Your task to perform on an android device: Add asus rog to the cart on bestbuy, then select checkout. Image 0: 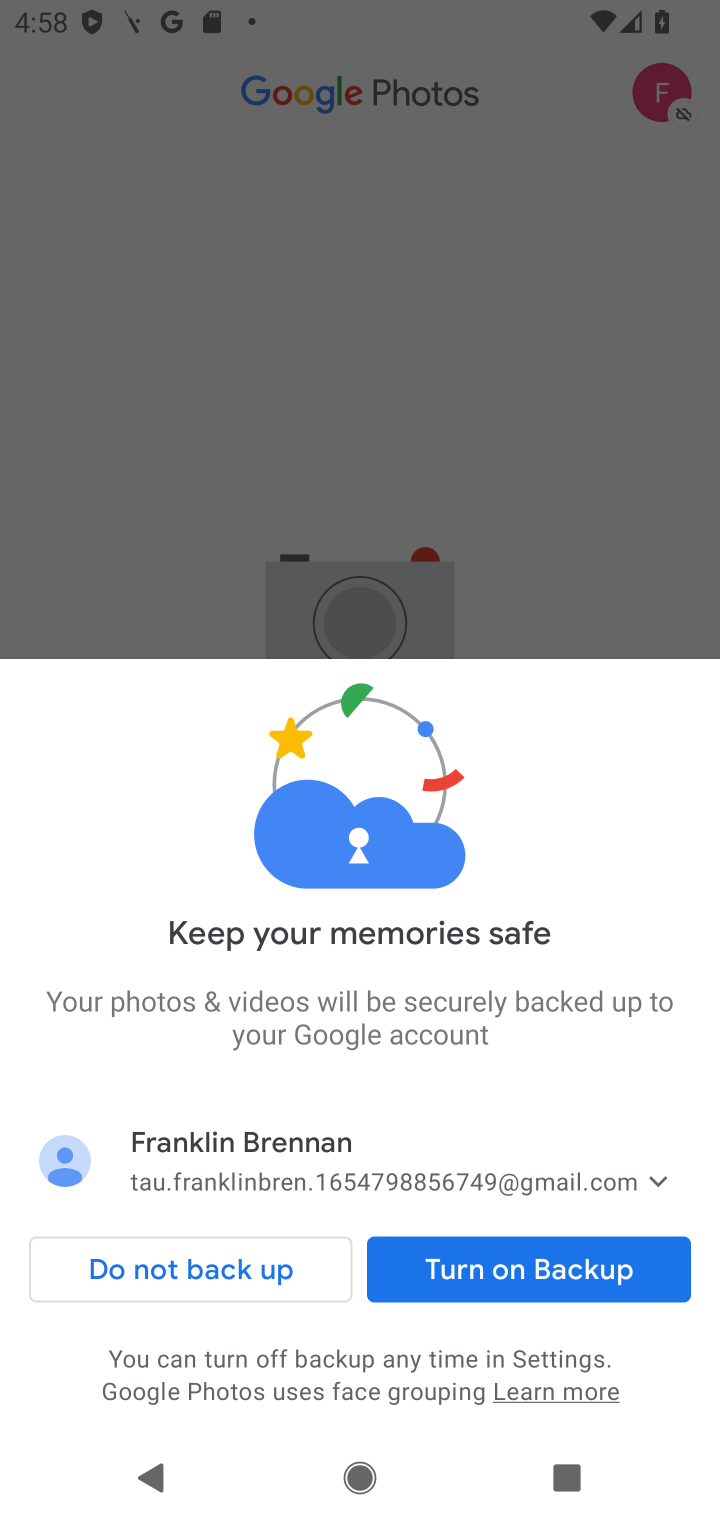
Step 0: press home button
Your task to perform on an android device: Add asus rog to the cart on bestbuy, then select checkout. Image 1: 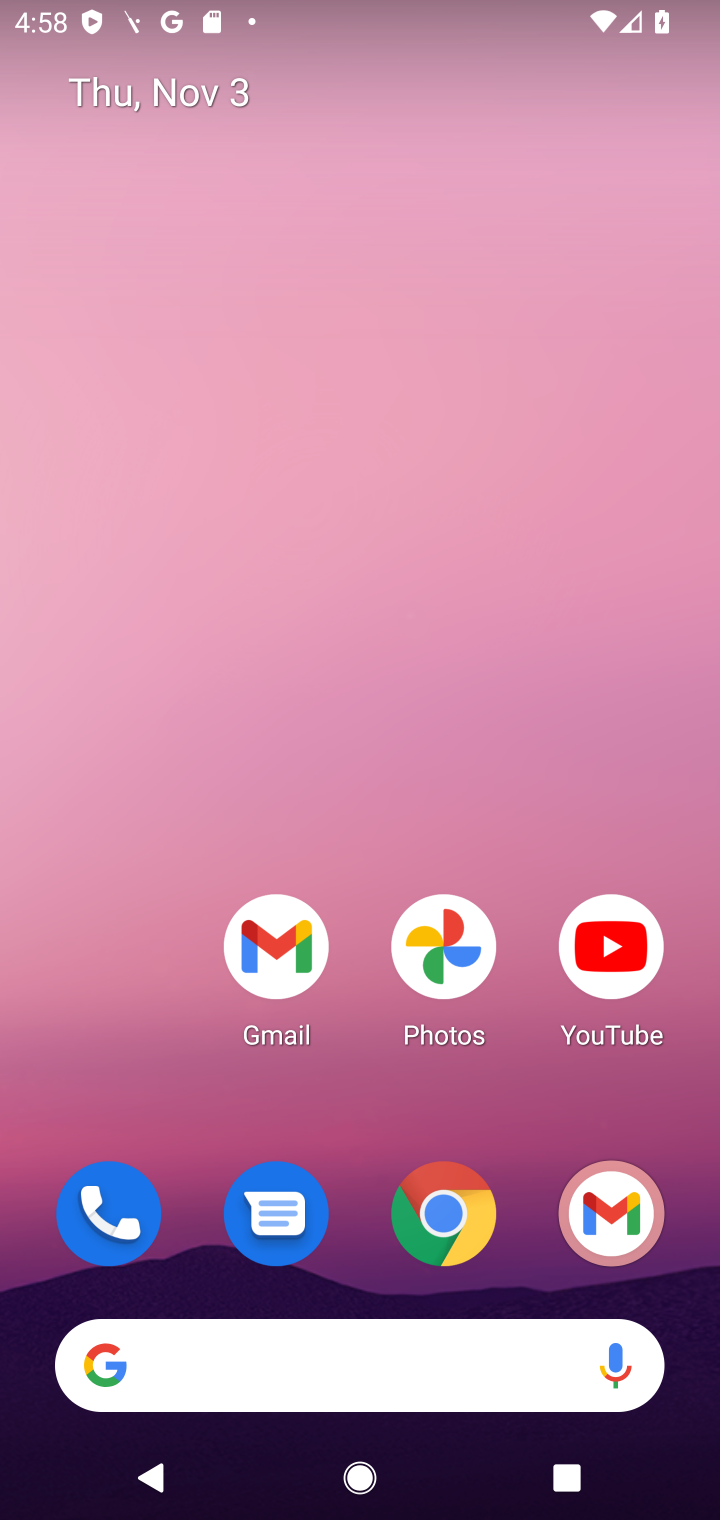
Step 1: click (446, 1226)
Your task to perform on an android device: Add asus rog to the cart on bestbuy, then select checkout. Image 2: 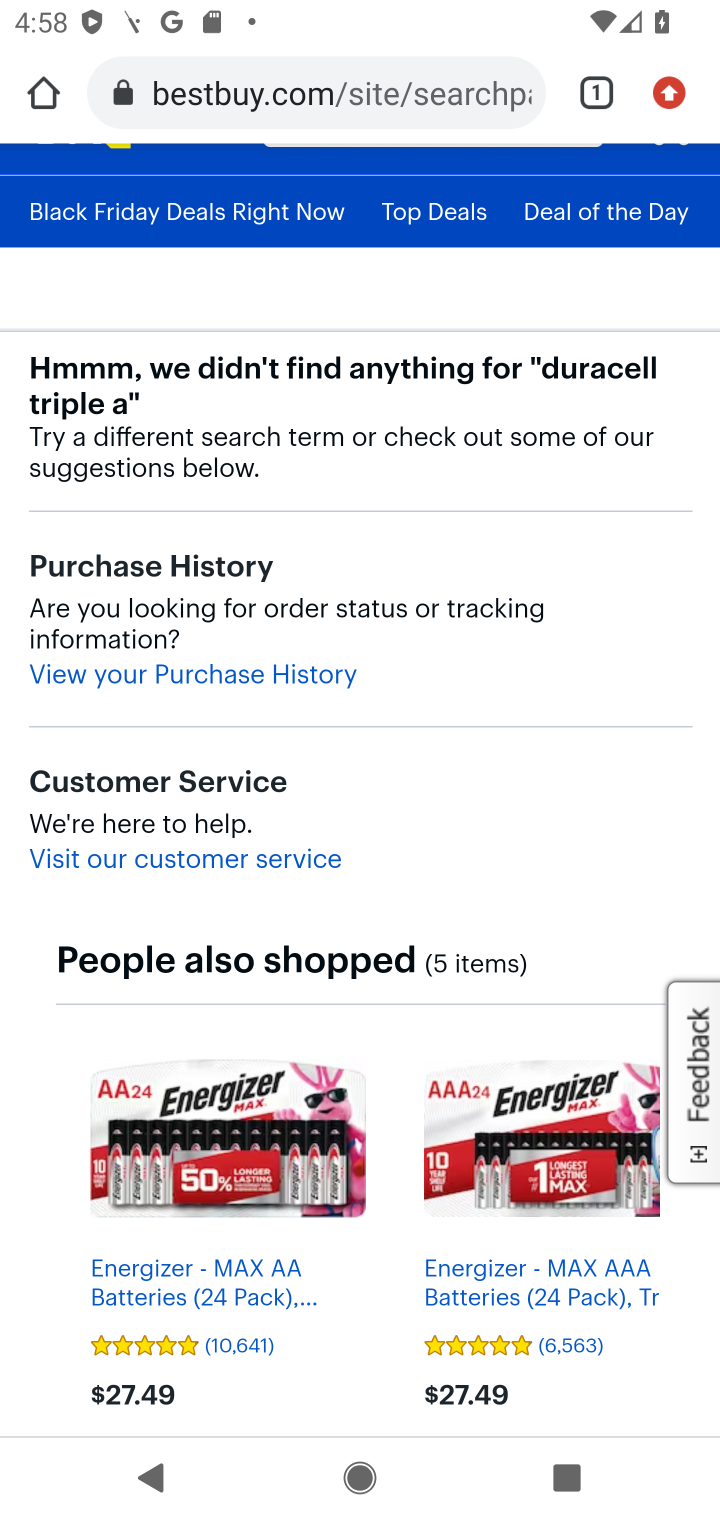
Step 2: drag from (310, 334) to (312, 939)
Your task to perform on an android device: Add asus rog to the cart on bestbuy, then select checkout. Image 3: 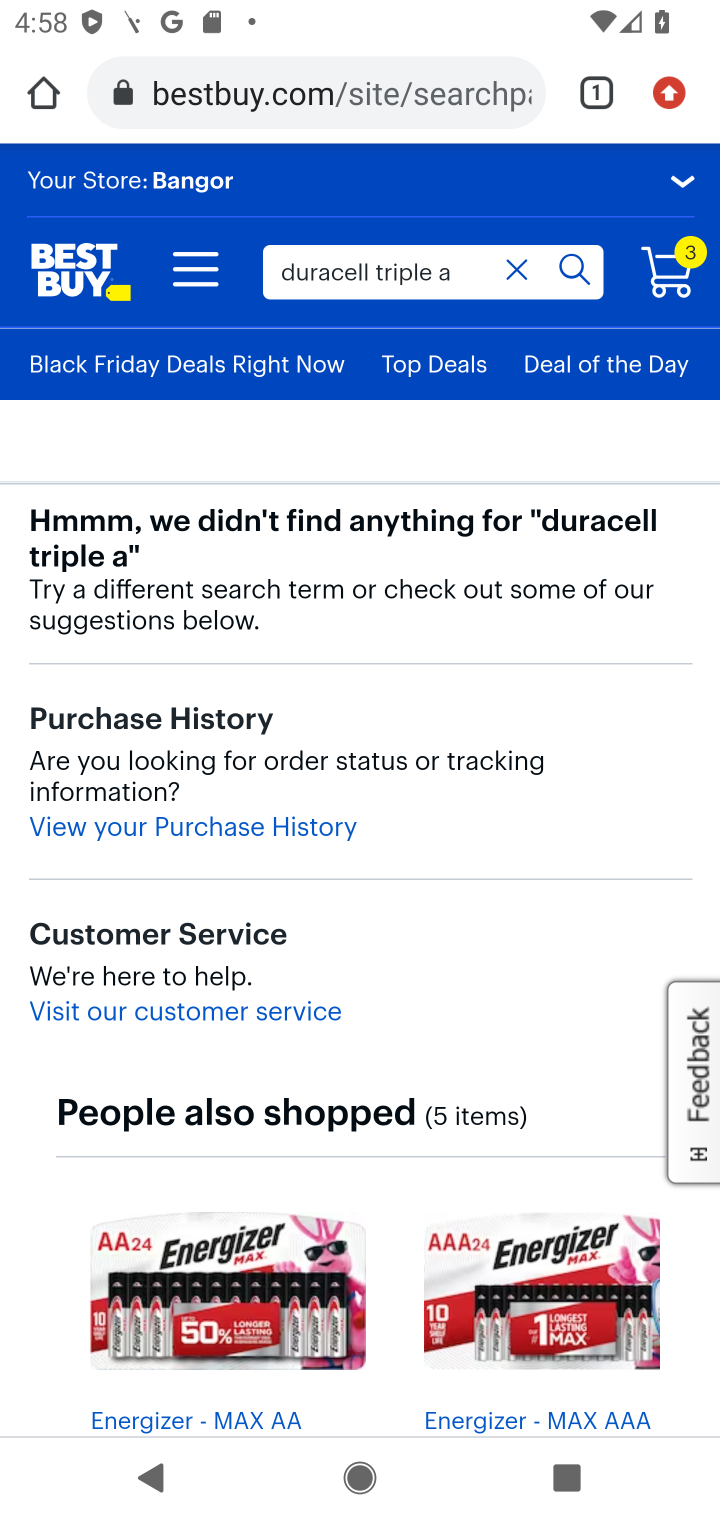
Step 3: click (513, 265)
Your task to perform on an android device: Add asus rog to the cart on bestbuy, then select checkout. Image 4: 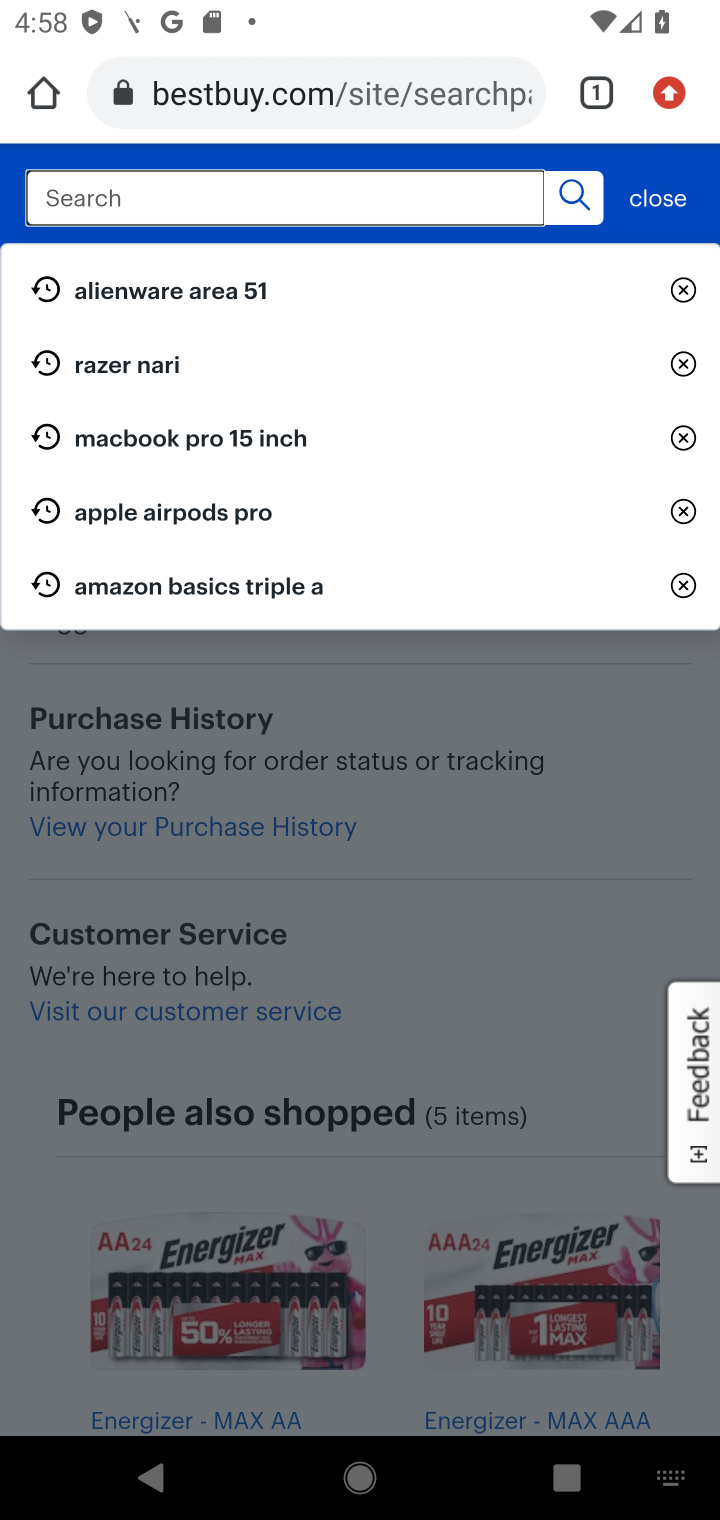
Step 4: click (169, 194)
Your task to perform on an android device: Add asus rog to the cart on bestbuy, then select checkout. Image 5: 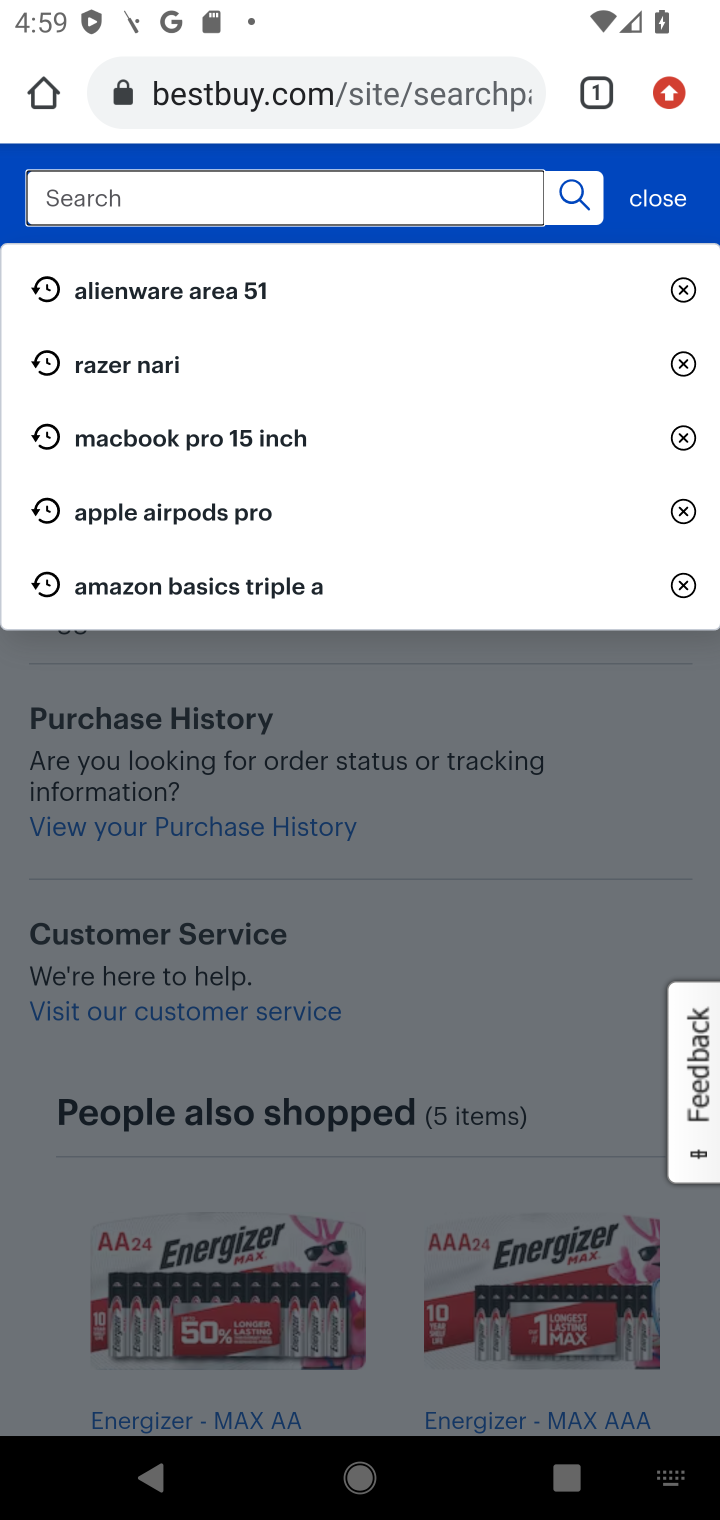
Step 5: type "asus rog"
Your task to perform on an android device: Add asus rog to the cart on bestbuy, then select checkout. Image 6: 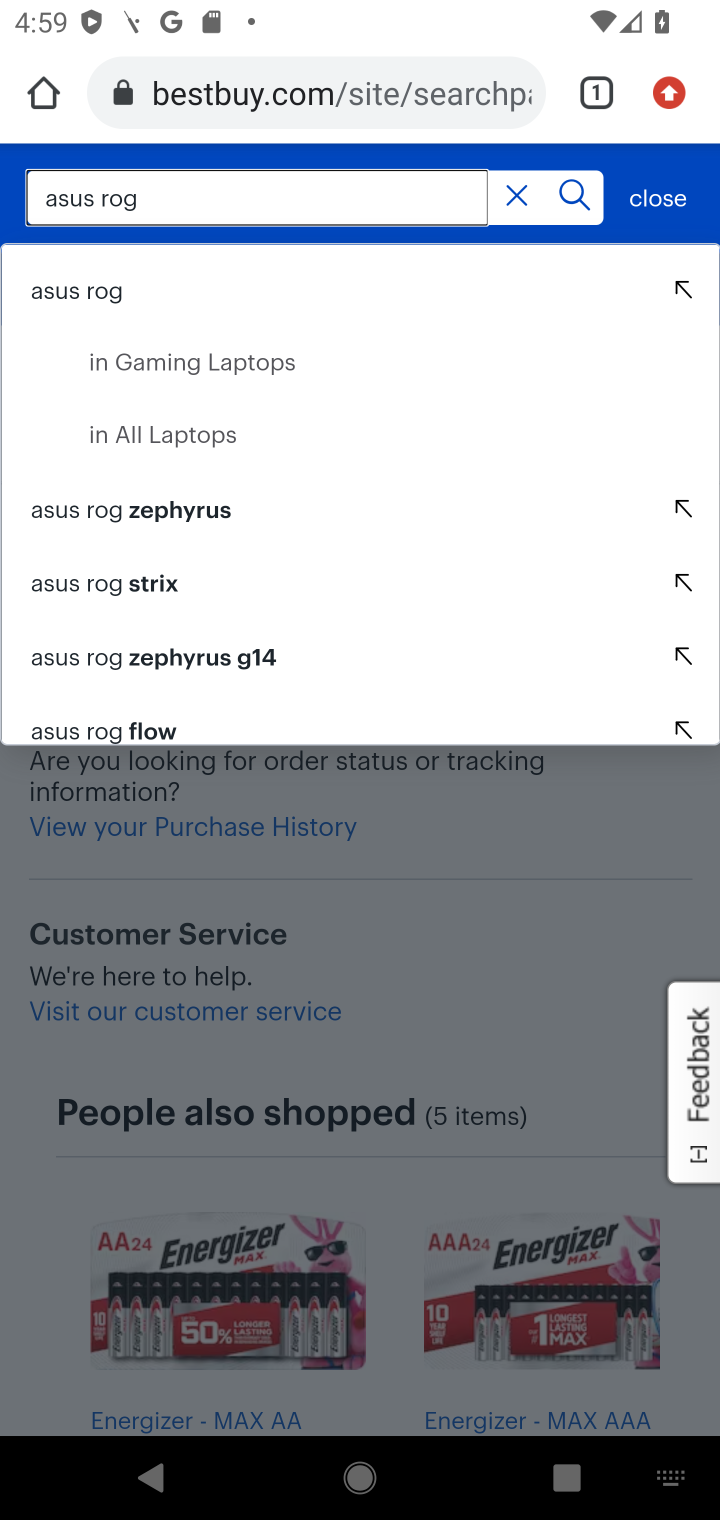
Step 6: click (91, 302)
Your task to perform on an android device: Add asus rog to the cart on bestbuy, then select checkout. Image 7: 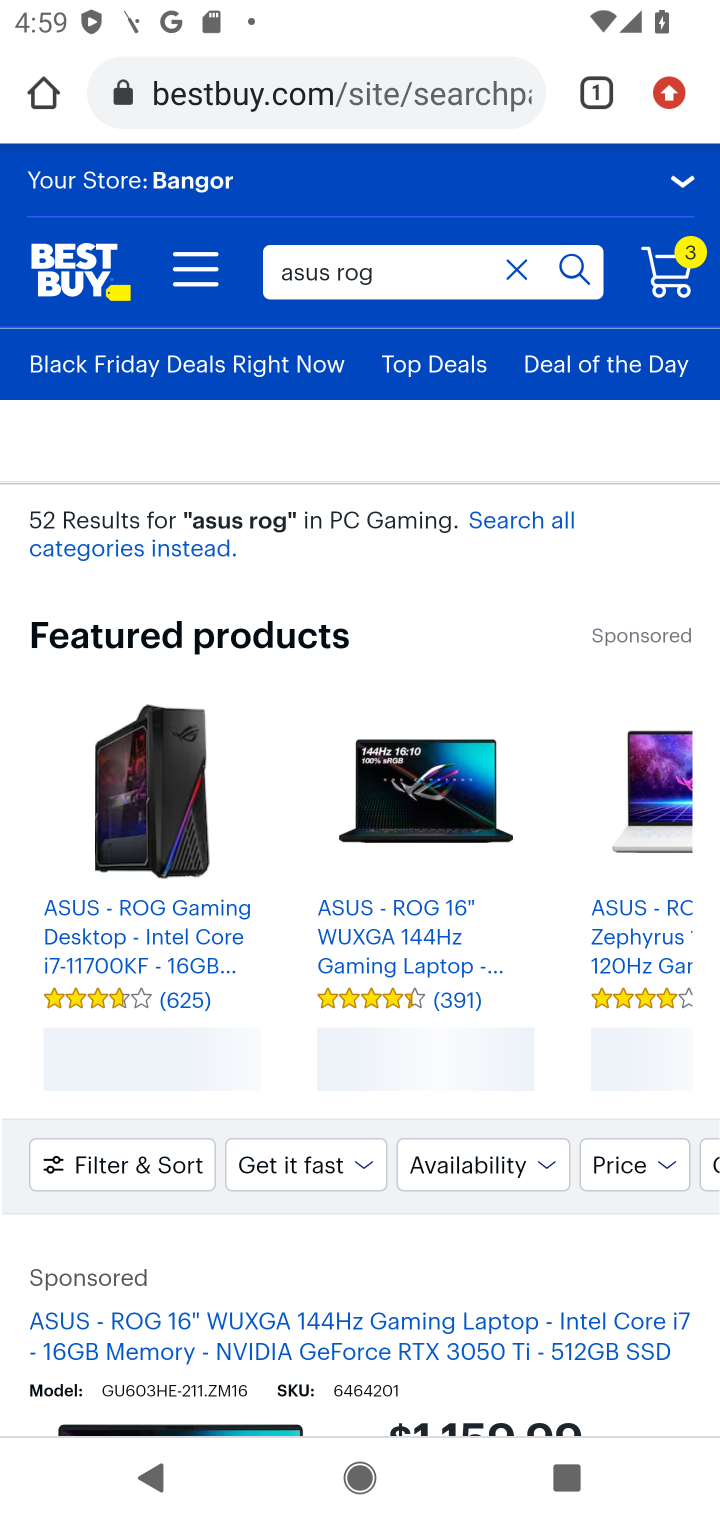
Step 7: drag from (339, 1090) to (337, 428)
Your task to perform on an android device: Add asus rog to the cart on bestbuy, then select checkout. Image 8: 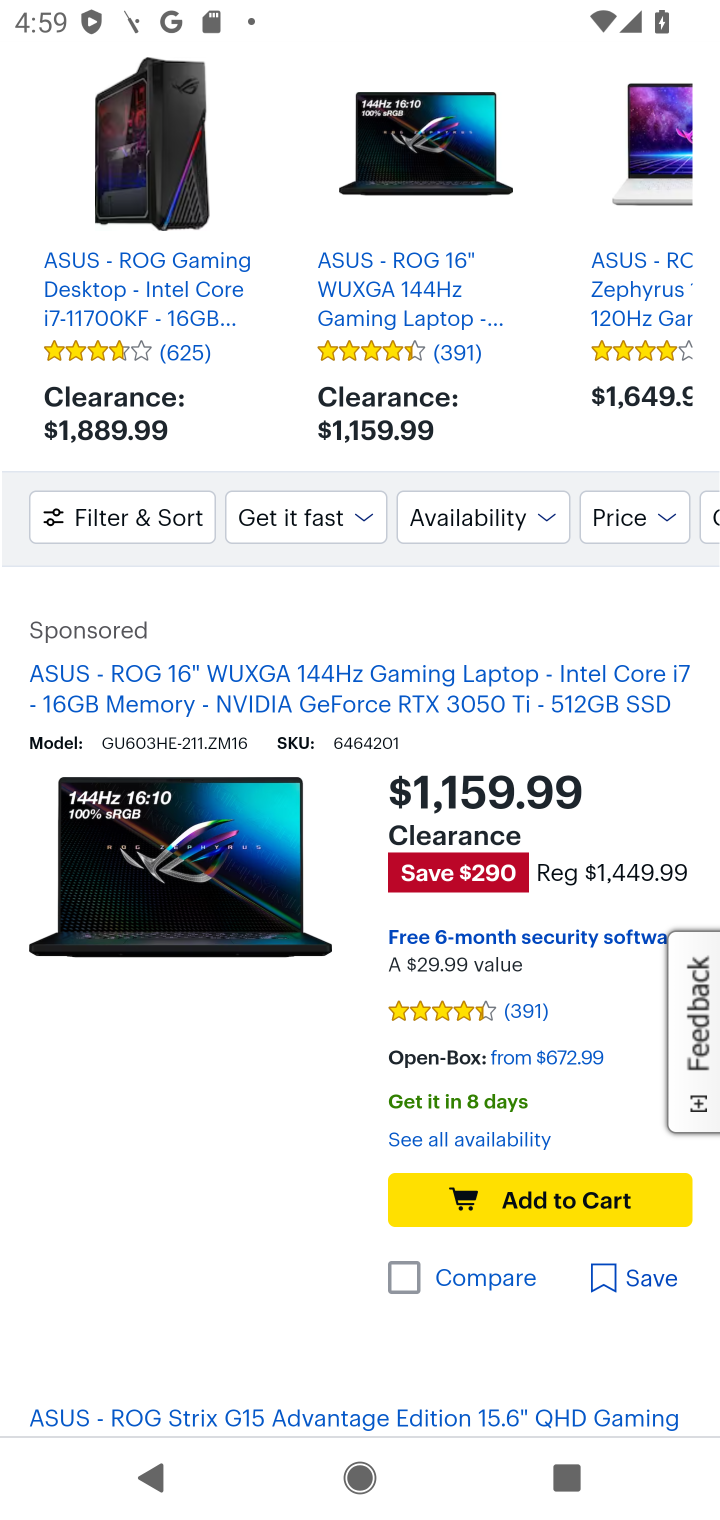
Step 8: click (269, 1320)
Your task to perform on an android device: Add asus rog to the cart on bestbuy, then select checkout. Image 9: 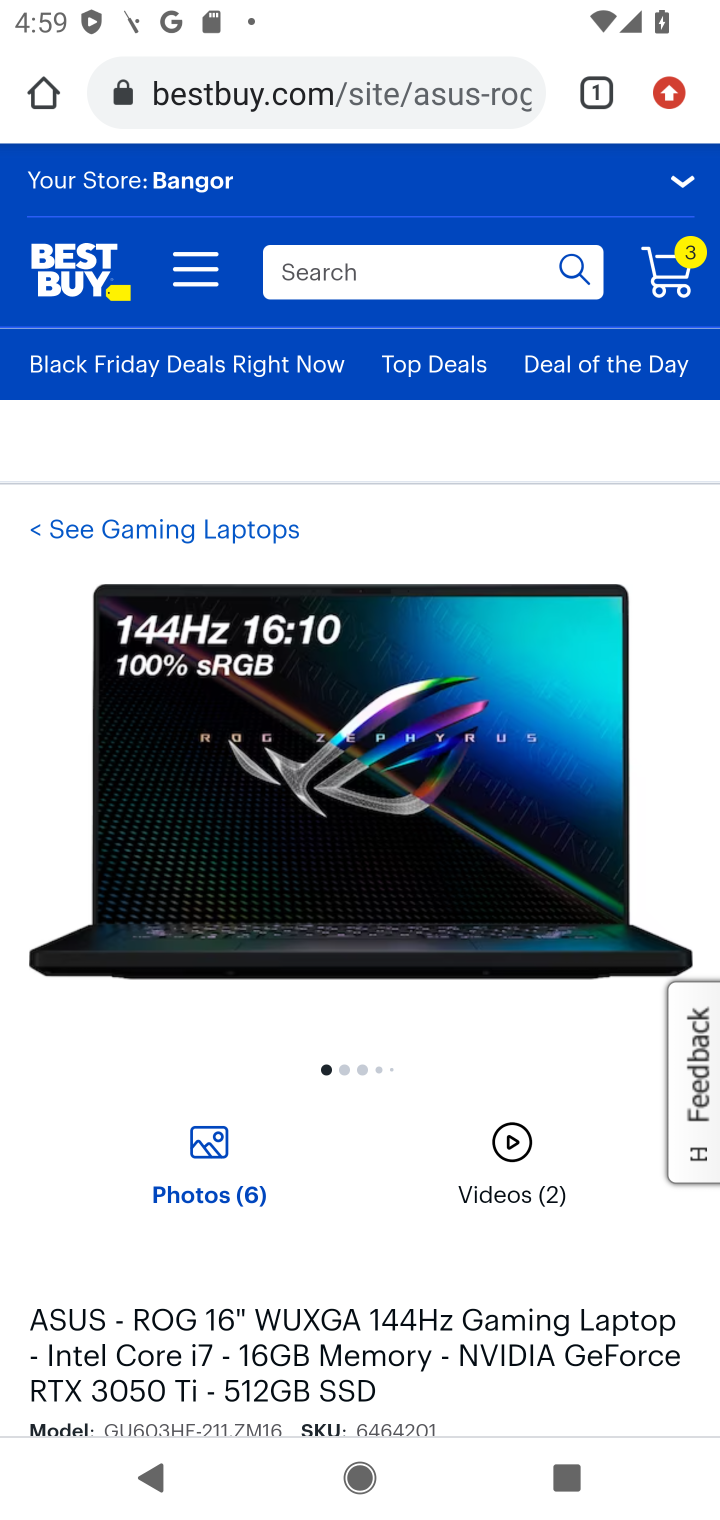
Step 9: drag from (278, 913) to (315, 466)
Your task to perform on an android device: Add asus rog to the cart on bestbuy, then select checkout. Image 10: 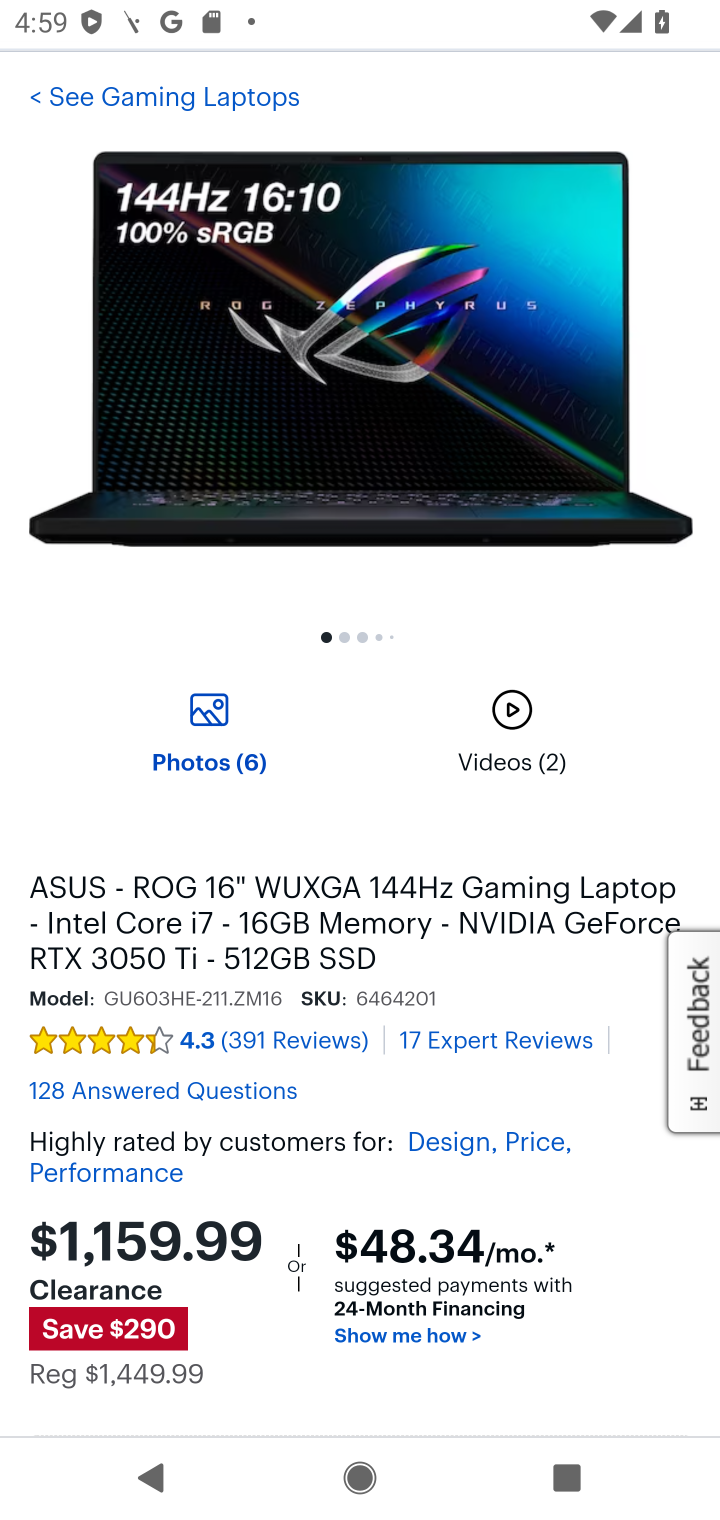
Step 10: drag from (323, 1052) to (335, 510)
Your task to perform on an android device: Add asus rog to the cart on bestbuy, then select checkout. Image 11: 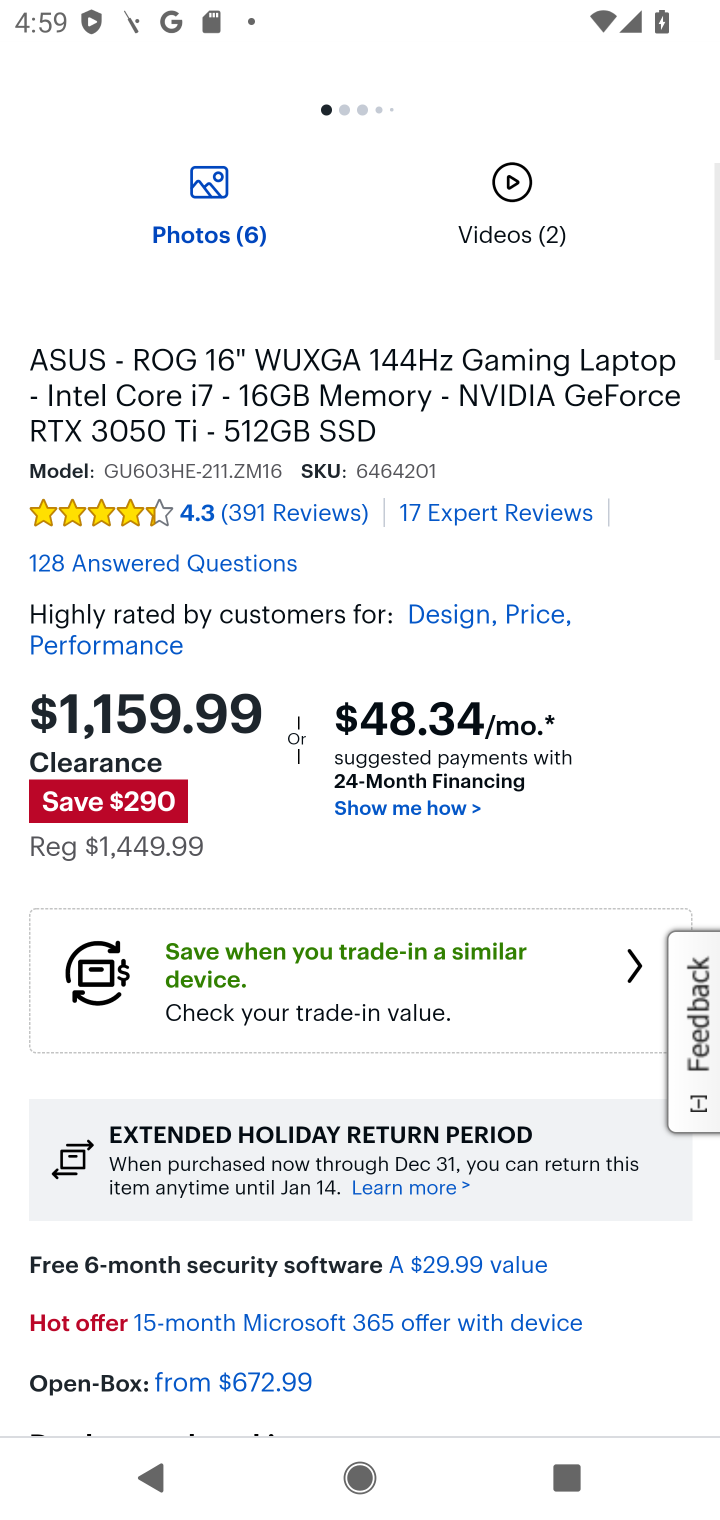
Step 11: drag from (333, 1077) to (358, 558)
Your task to perform on an android device: Add asus rog to the cart on bestbuy, then select checkout. Image 12: 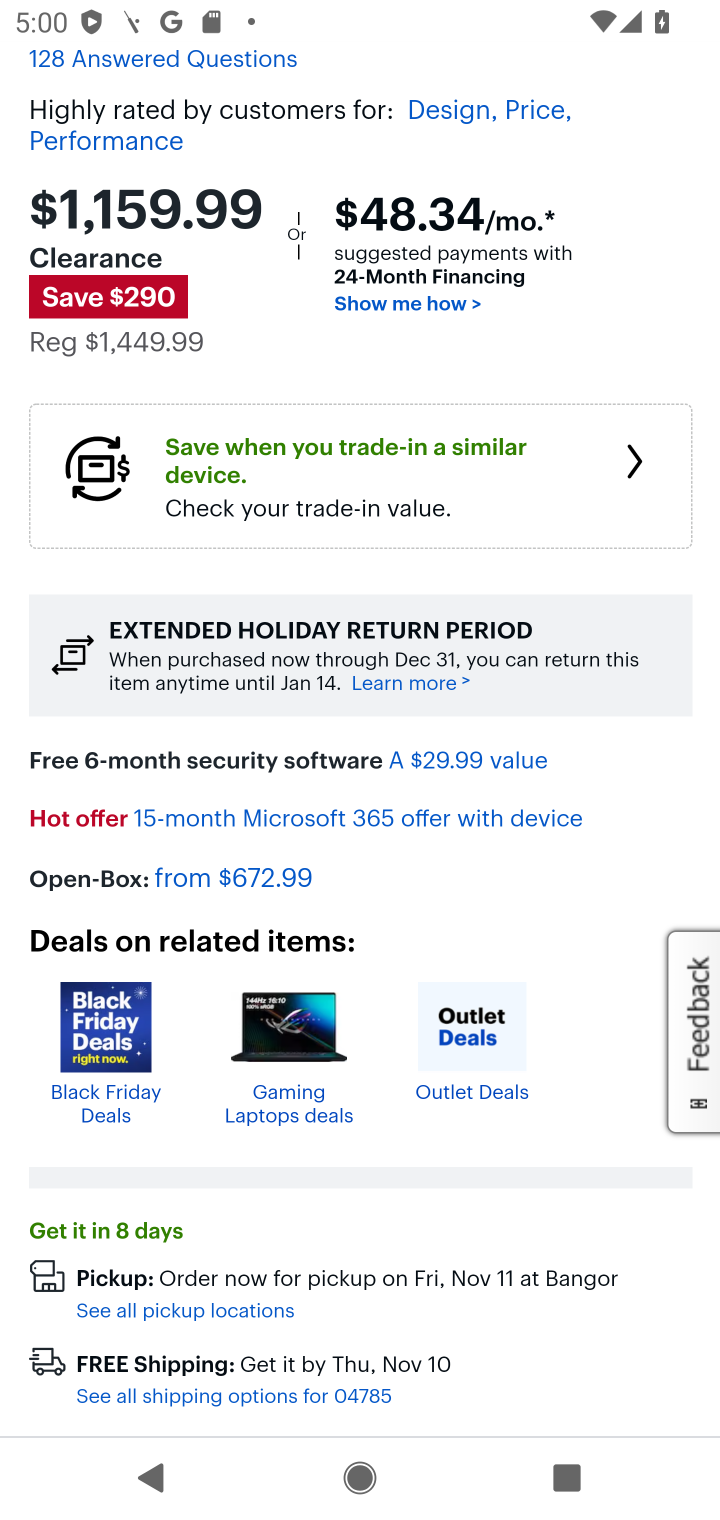
Step 12: drag from (326, 1179) to (322, 617)
Your task to perform on an android device: Add asus rog to the cart on bestbuy, then select checkout. Image 13: 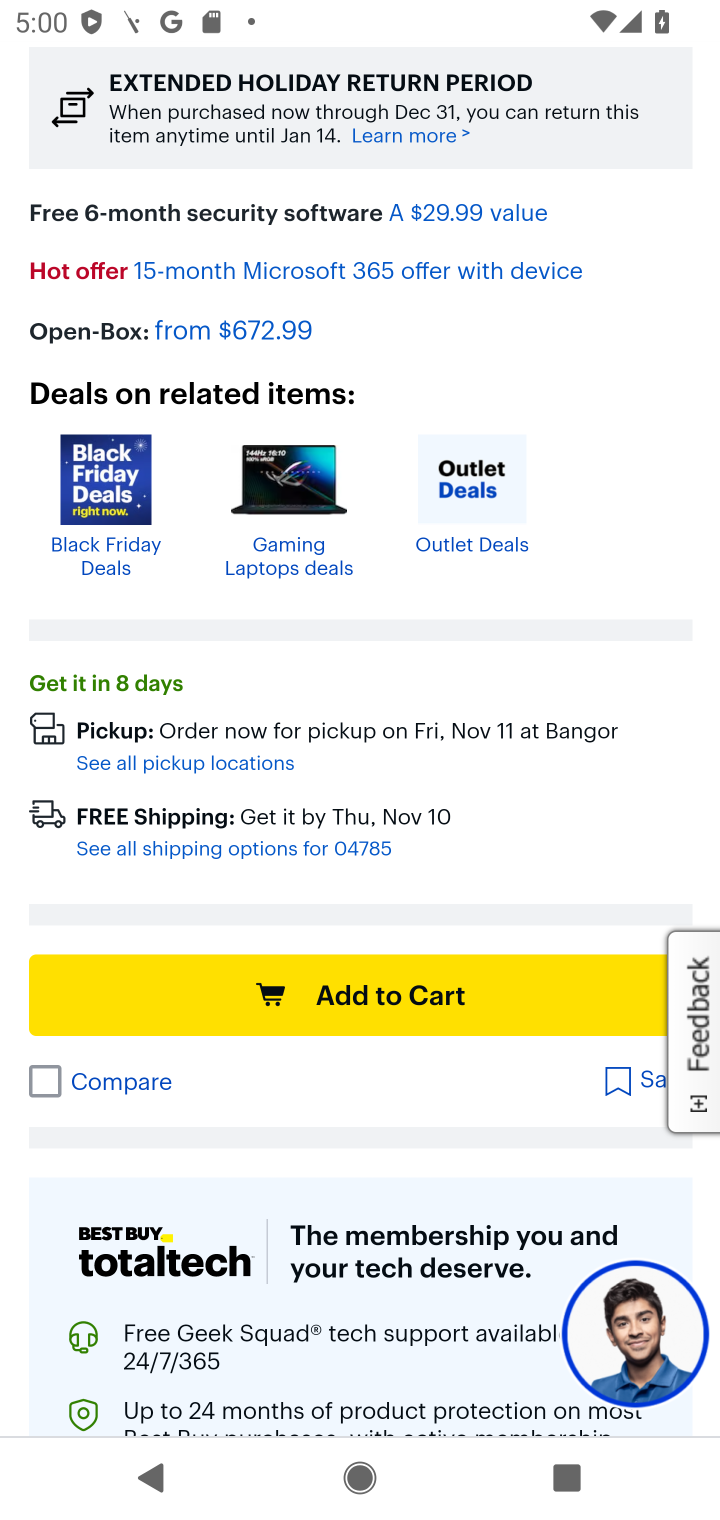
Step 13: click (369, 996)
Your task to perform on an android device: Add asus rog to the cart on bestbuy, then select checkout. Image 14: 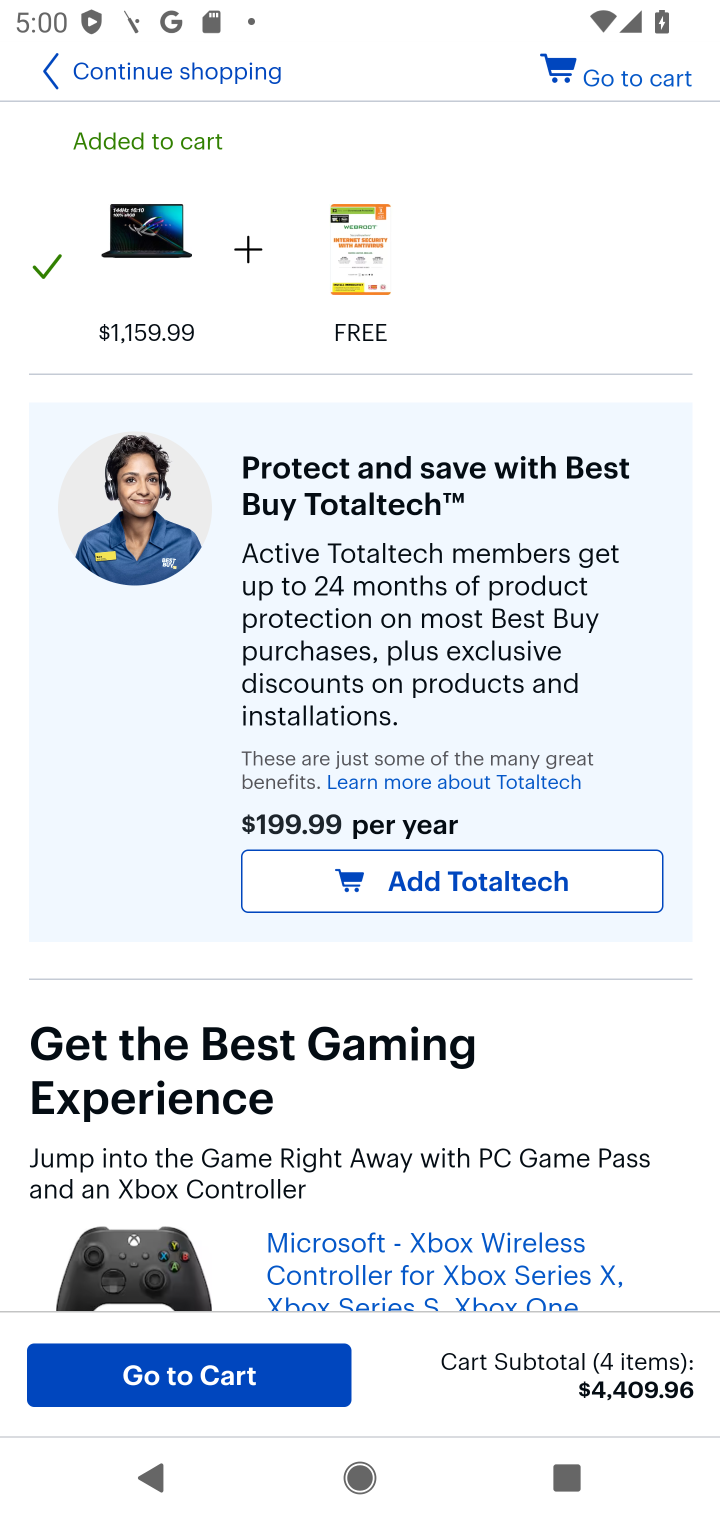
Step 14: click (632, 83)
Your task to perform on an android device: Add asus rog to the cart on bestbuy, then select checkout. Image 15: 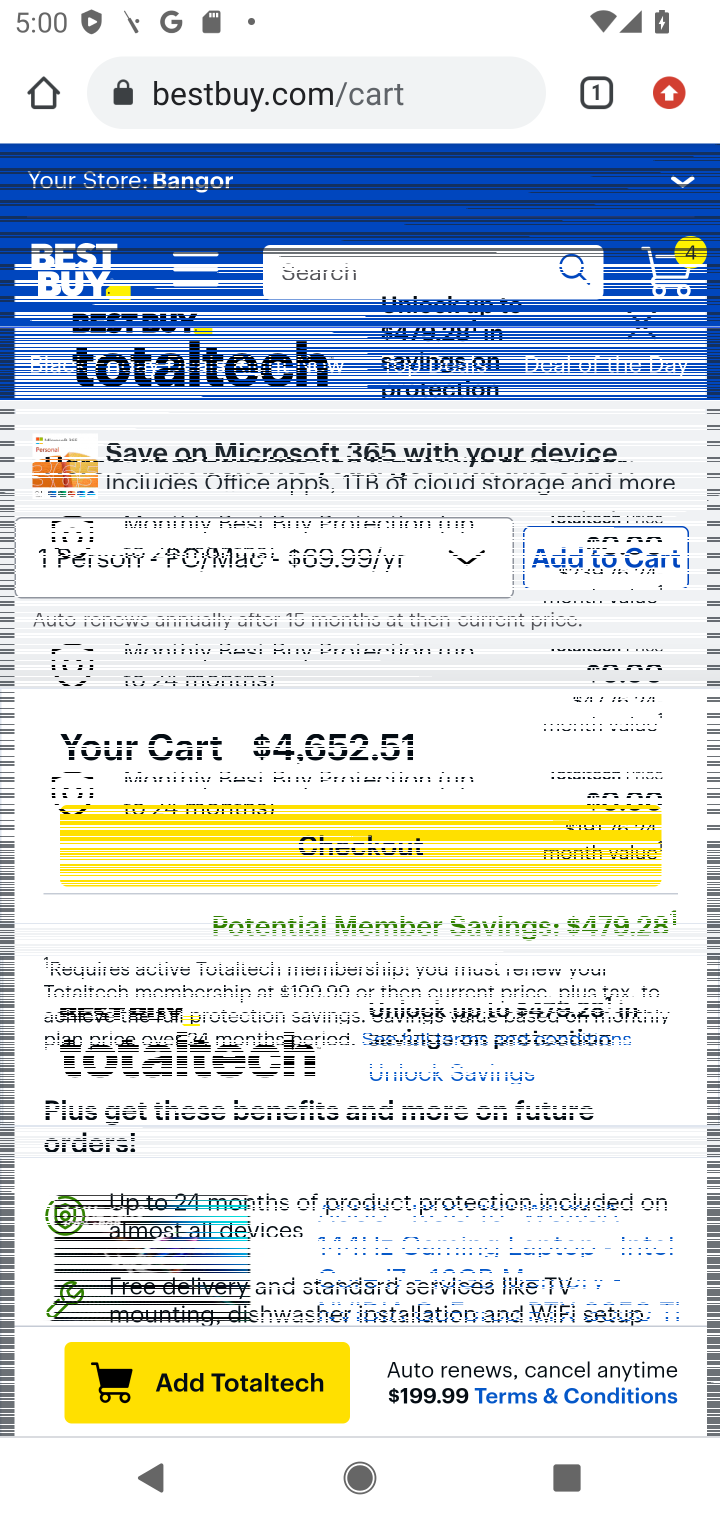
Step 15: click (649, 313)
Your task to perform on an android device: Add asus rog to the cart on bestbuy, then select checkout. Image 16: 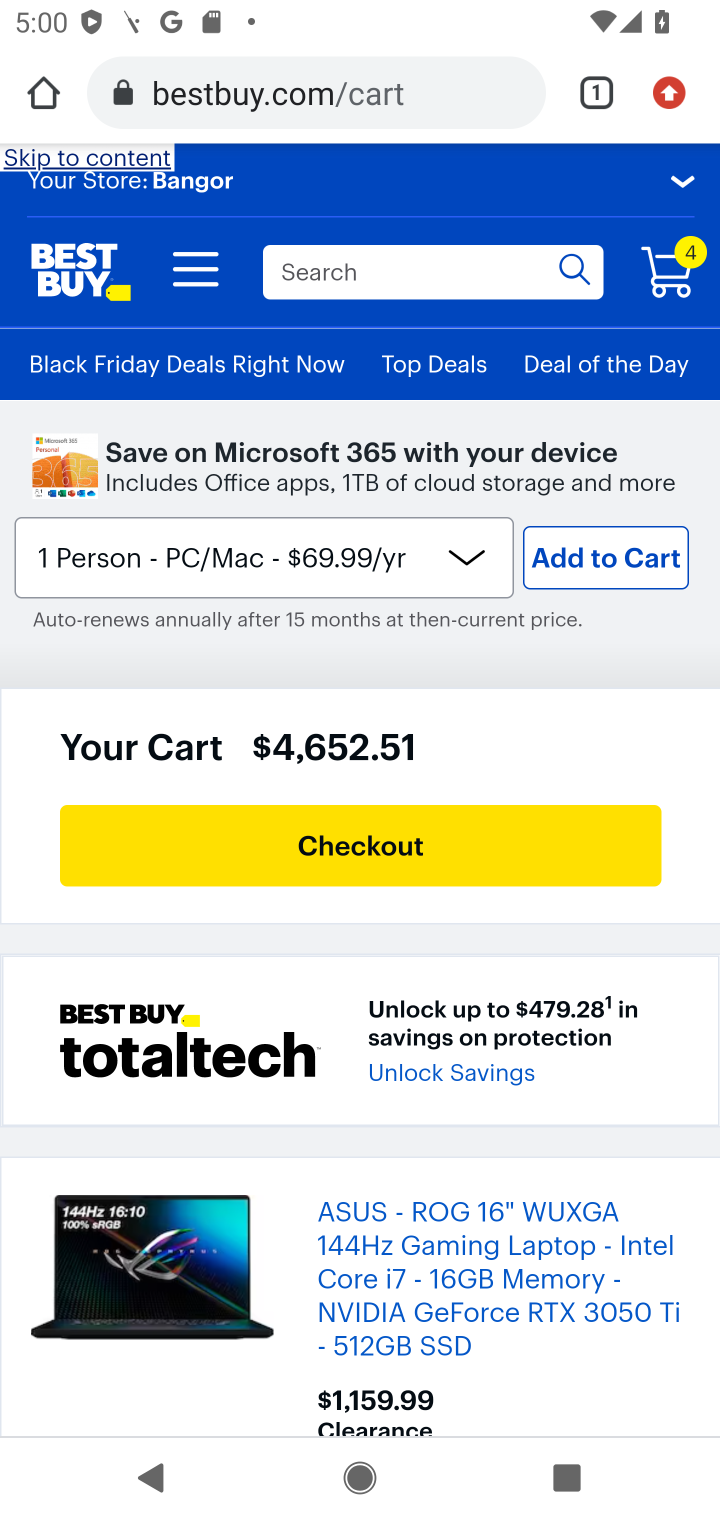
Step 16: click (390, 843)
Your task to perform on an android device: Add asus rog to the cart on bestbuy, then select checkout. Image 17: 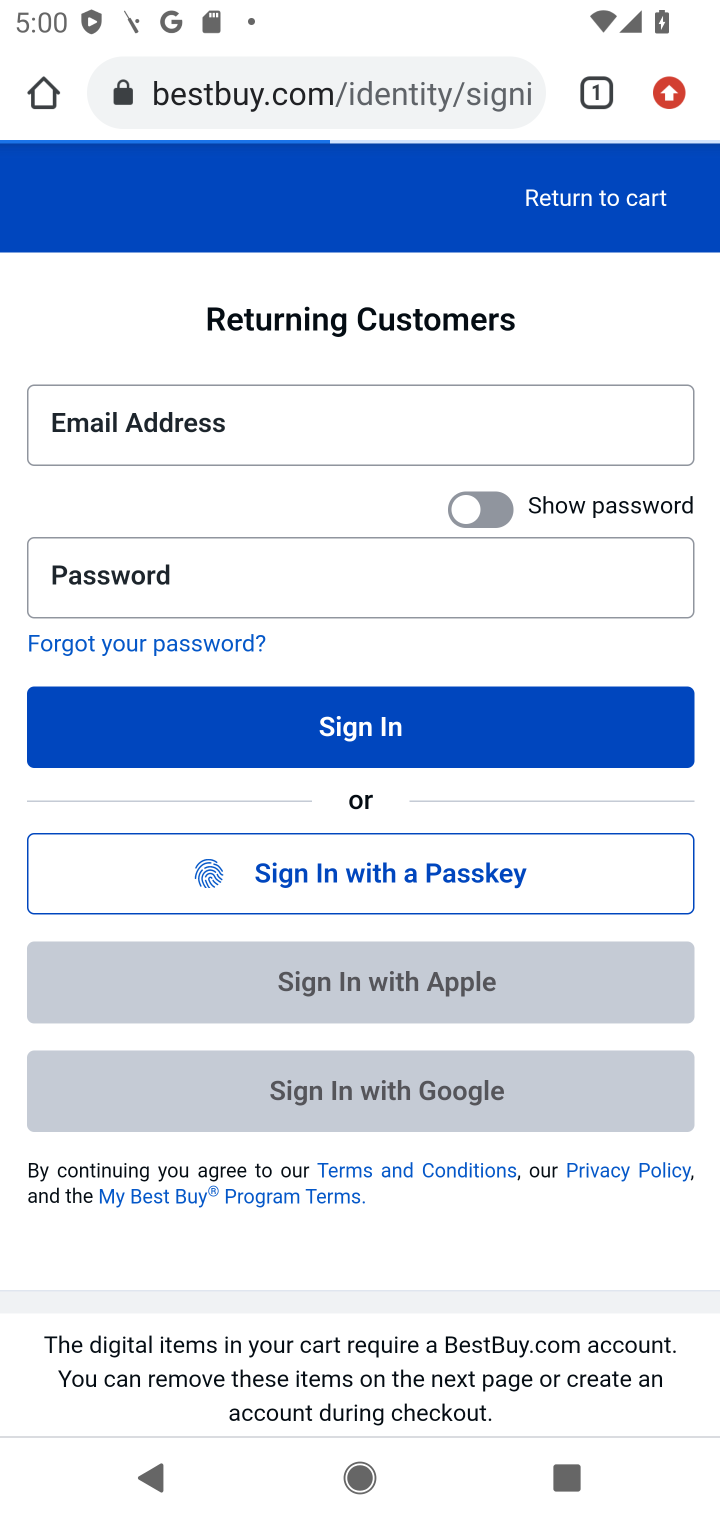
Step 17: task complete